Your task to perform on an android device: manage bookmarks in the chrome app Image 0: 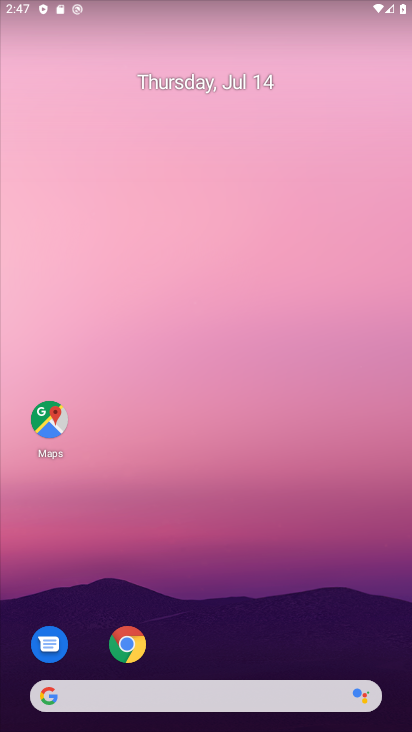
Step 0: click (225, 191)
Your task to perform on an android device: manage bookmarks in the chrome app Image 1: 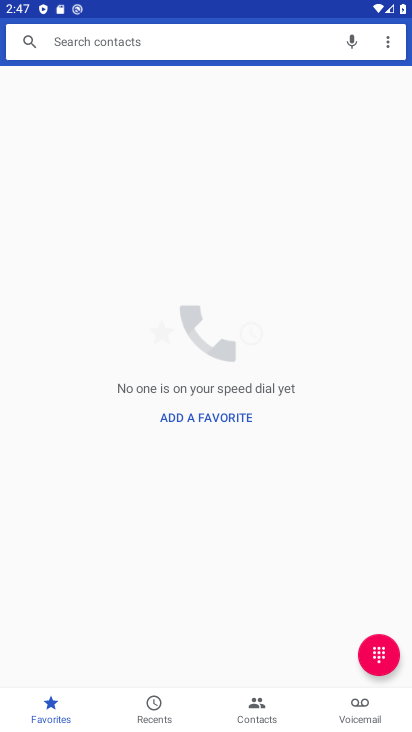
Step 1: press home button
Your task to perform on an android device: manage bookmarks in the chrome app Image 2: 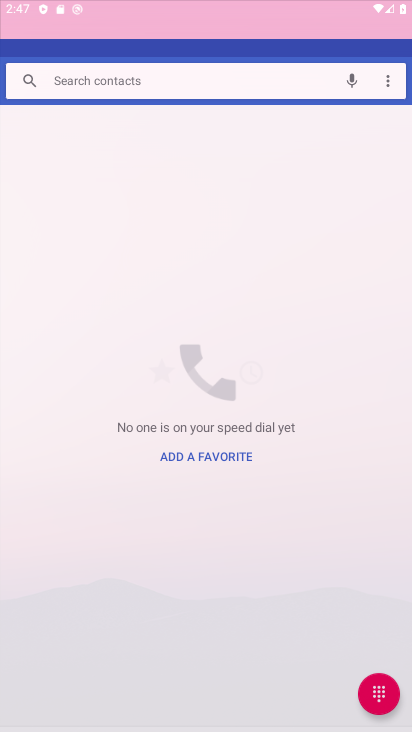
Step 2: drag from (198, 631) to (272, 307)
Your task to perform on an android device: manage bookmarks in the chrome app Image 3: 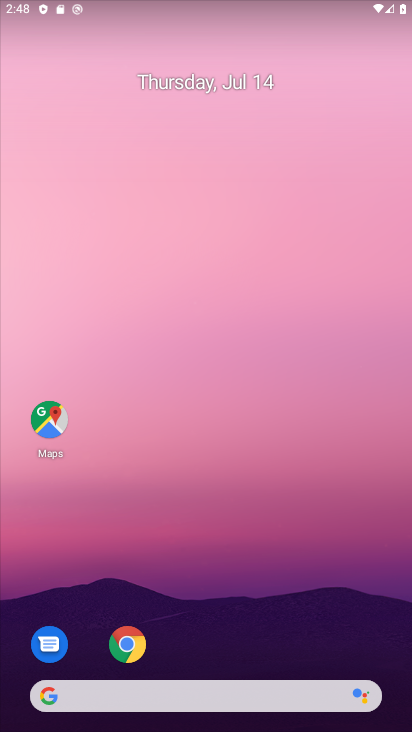
Step 3: drag from (186, 621) to (244, 212)
Your task to perform on an android device: manage bookmarks in the chrome app Image 4: 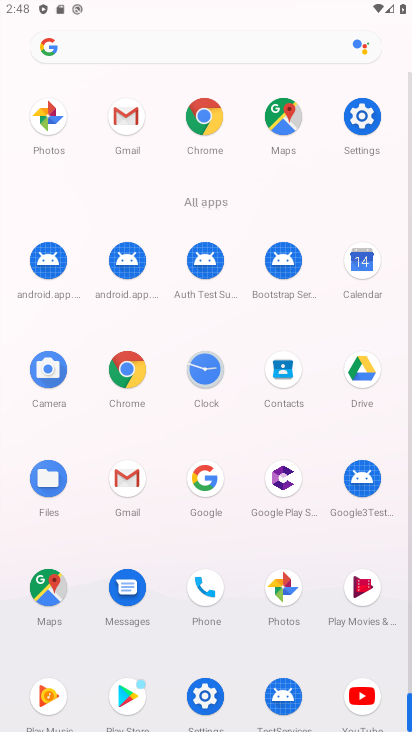
Step 4: click (129, 374)
Your task to perform on an android device: manage bookmarks in the chrome app Image 5: 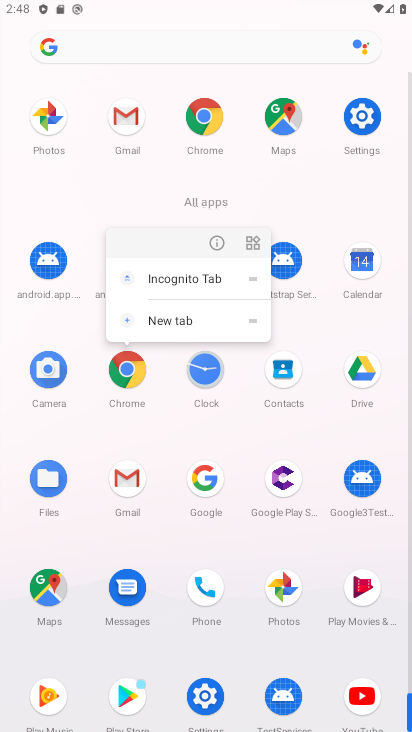
Step 5: click (217, 236)
Your task to perform on an android device: manage bookmarks in the chrome app Image 6: 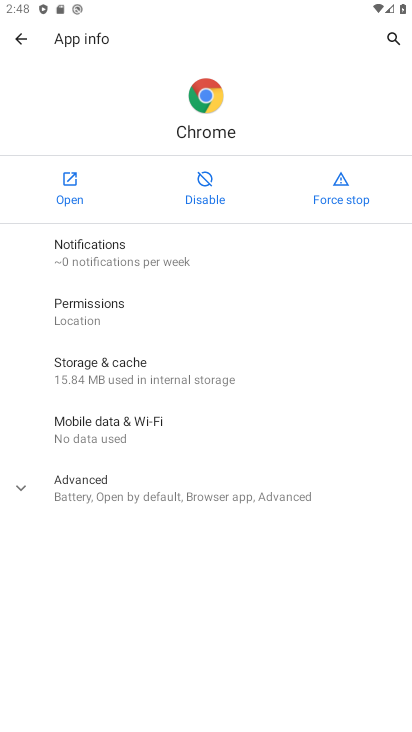
Step 6: click (72, 193)
Your task to perform on an android device: manage bookmarks in the chrome app Image 7: 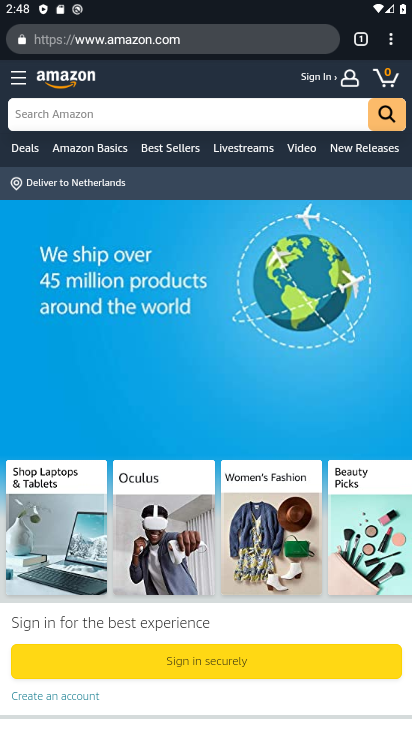
Step 7: click (398, 33)
Your task to perform on an android device: manage bookmarks in the chrome app Image 8: 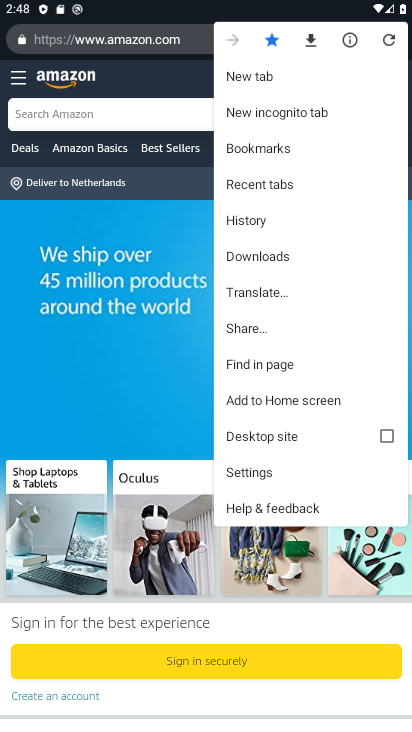
Step 8: click (258, 465)
Your task to perform on an android device: manage bookmarks in the chrome app Image 9: 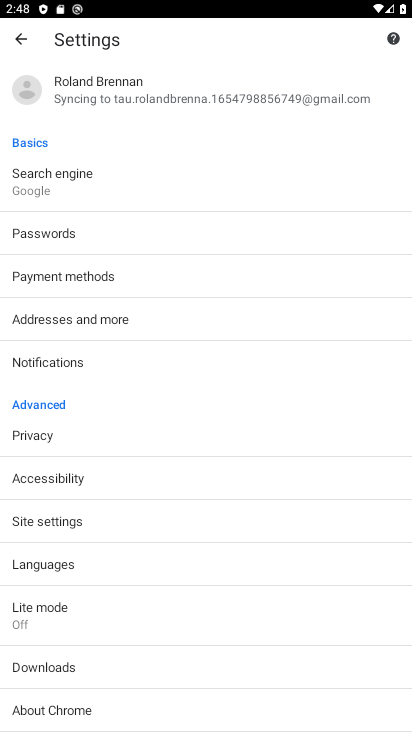
Step 9: drag from (121, 483) to (194, 181)
Your task to perform on an android device: manage bookmarks in the chrome app Image 10: 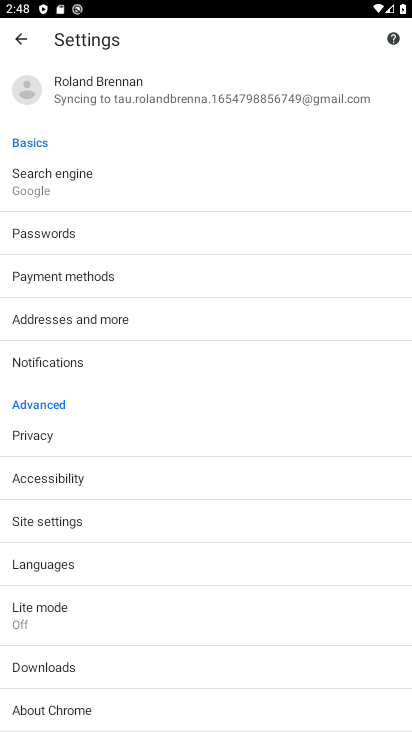
Step 10: click (15, 32)
Your task to perform on an android device: manage bookmarks in the chrome app Image 11: 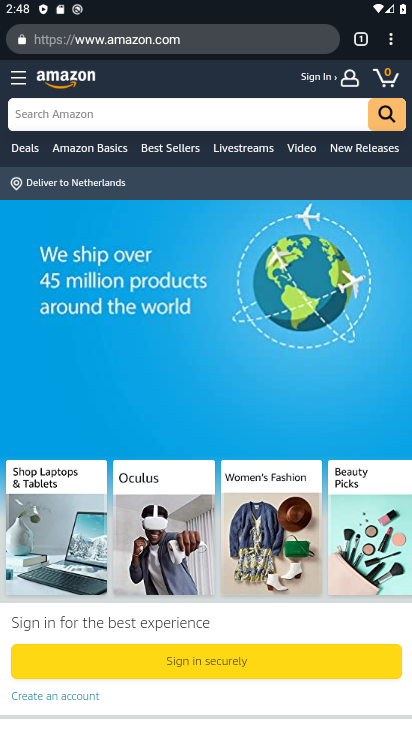
Step 11: click (392, 46)
Your task to perform on an android device: manage bookmarks in the chrome app Image 12: 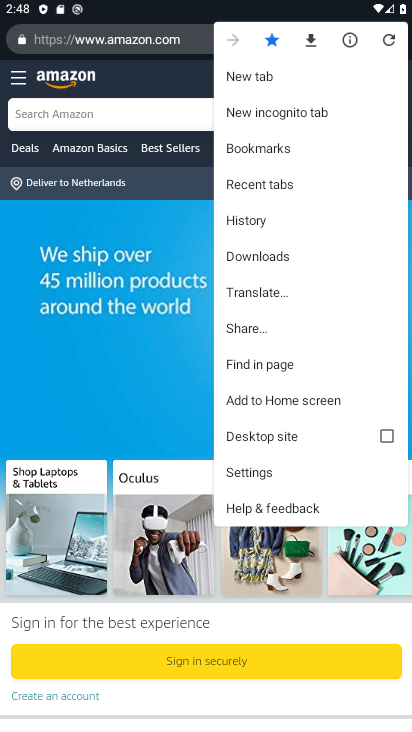
Step 12: click (272, 154)
Your task to perform on an android device: manage bookmarks in the chrome app Image 13: 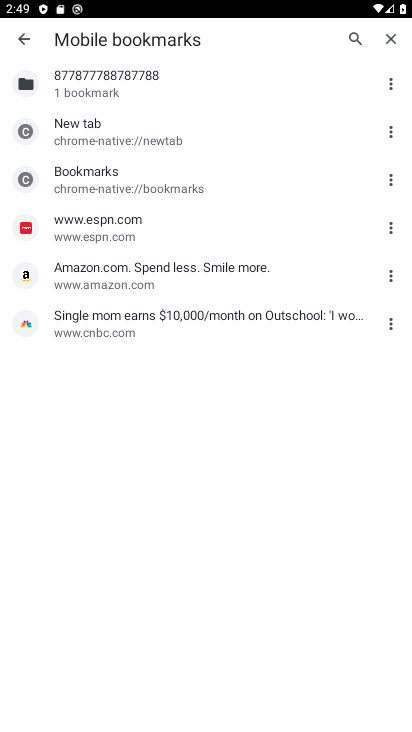
Step 13: task complete